Your task to perform on an android device: empty trash in the gmail app Image 0: 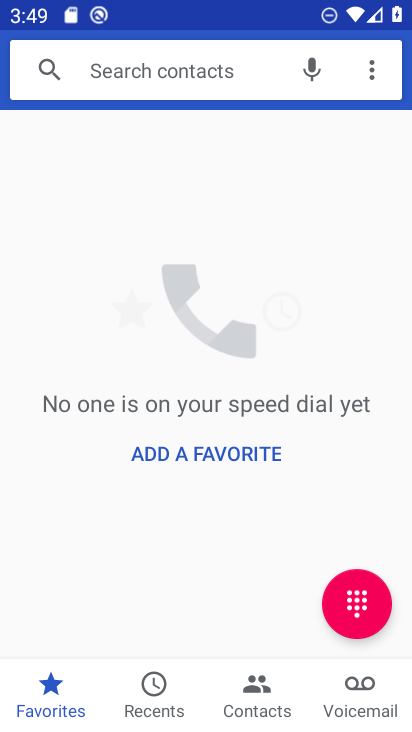
Step 0: press home button
Your task to perform on an android device: empty trash in the gmail app Image 1: 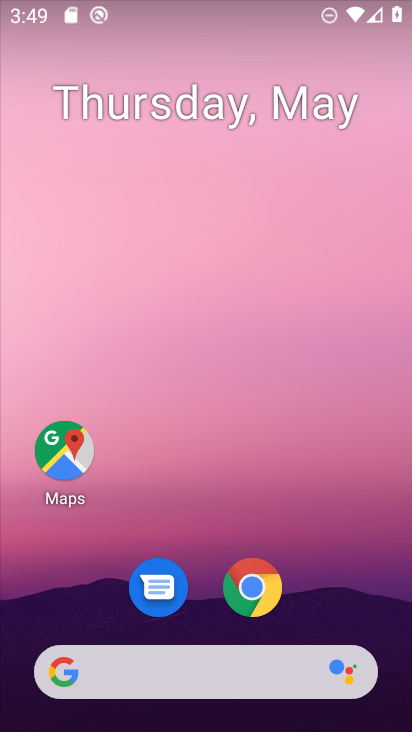
Step 1: drag from (375, 542) to (384, 165)
Your task to perform on an android device: empty trash in the gmail app Image 2: 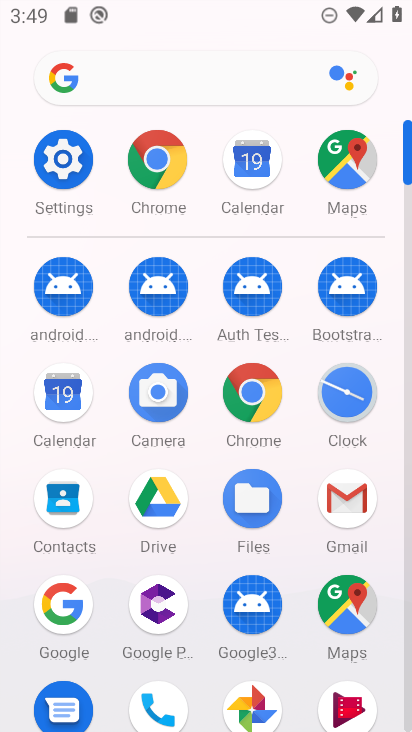
Step 2: click (358, 508)
Your task to perform on an android device: empty trash in the gmail app Image 3: 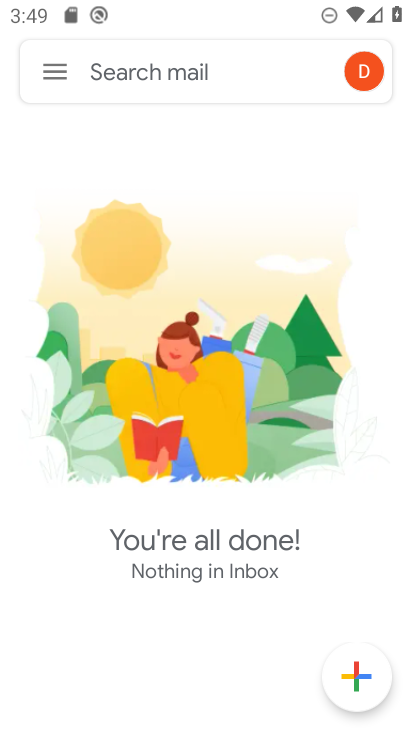
Step 3: click (58, 90)
Your task to perform on an android device: empty trash in the gmail app Image 4: 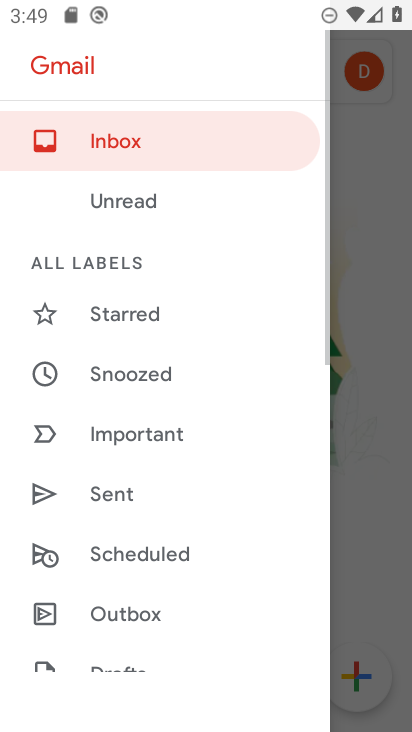
Step 4: drag from (259, 525) to (254, 383)
Your task to perform on an android device: empty trash in the gmail app Image 5: 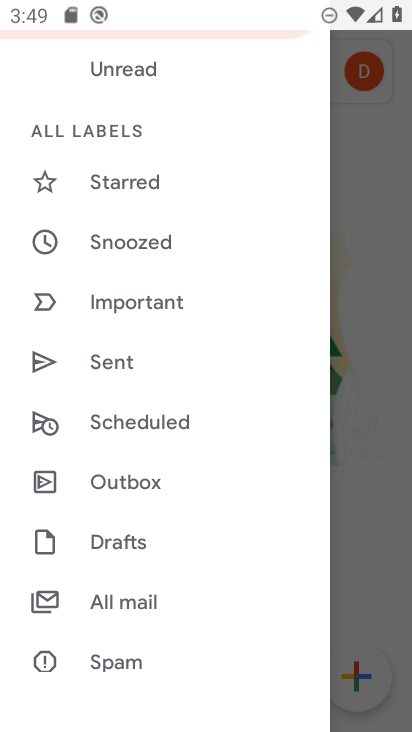
Step 5: drag from (252, 570) to (247, 430)
Your task to perform on an android device: empty trash in the gmail app Image 6: 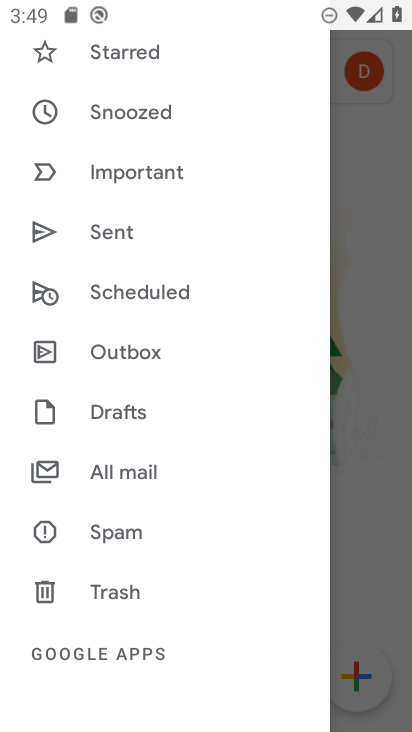
Step 6: drag from (233, 583) to (224, 419)
Your task to perform on an android device: empty trash in the gmail app Image 7: 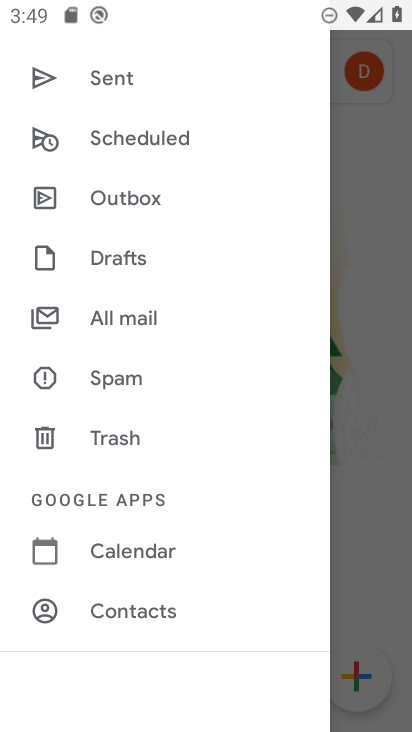
Step 7: drag from (230, 600) to (229, 492)
Your task to perform on an android device: empty trash in the gmail app Image 8: 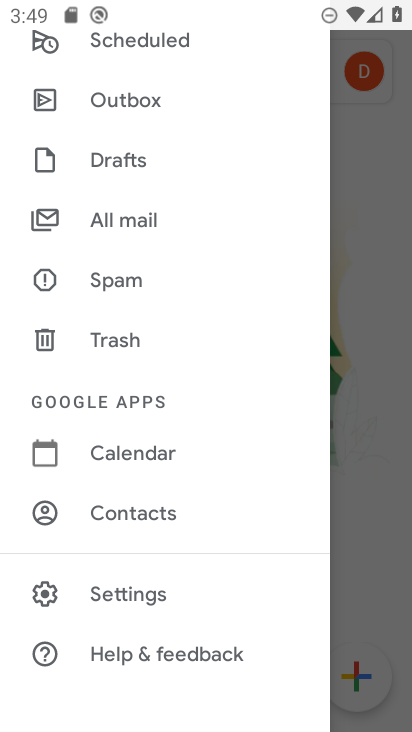
Step 8: drag from (229, 617) to (232, 488)
Your task to perform on an android device: empty trash in the gmail app Image 9: 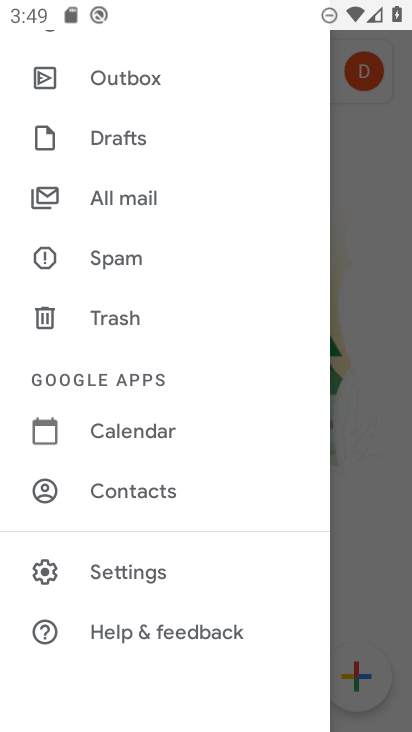
Step 9: drag from (240, 387) to (242, 501)
Your task to perform on an android device: empty trash in the gmail app Image 10: 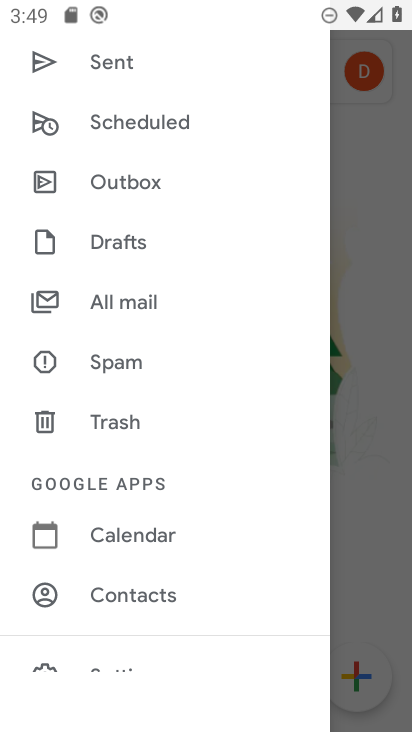
Step 10: drag from (236, 386) to (242, 458)
Your task to perform on an android device: empty trash in the gmail app Image 11: 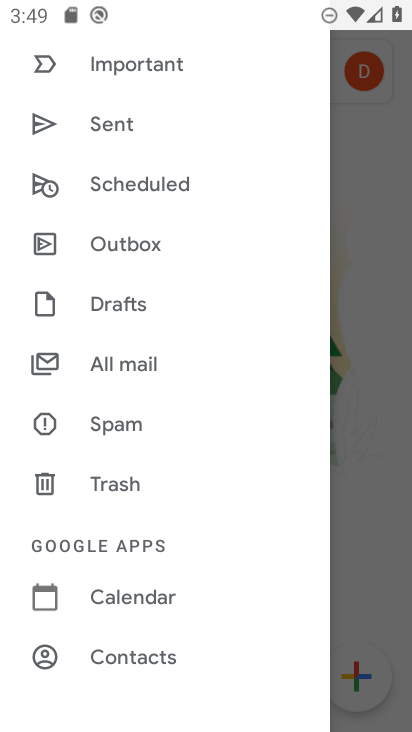
Step 11: click (170, 485)
Your task to perform on an android device: empty trash in the gmail app Image 12: 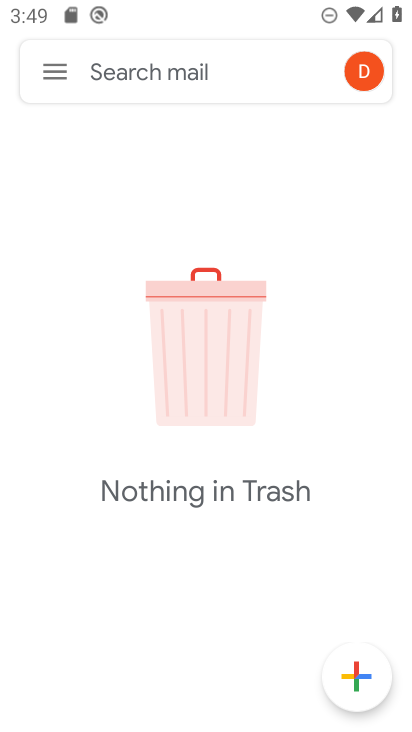
Step 12: task complete